Your task to perform on an android device: turn off translation in the chrome app Image 0: 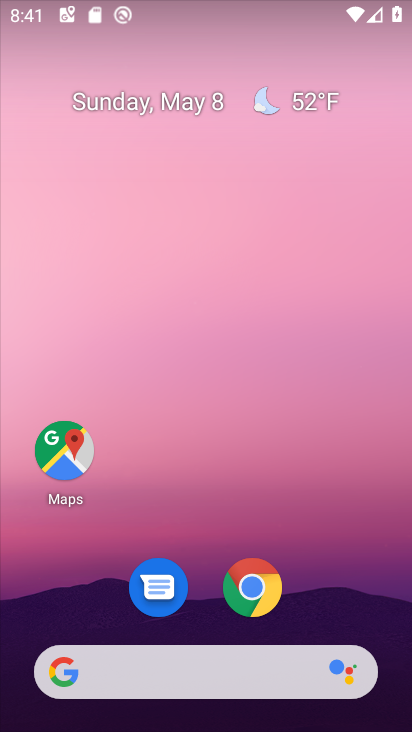
Step 0: drag from (369, 603) to (210, 151)
Your task to perform on an android device: turn off translation in the chrome app Image 1: 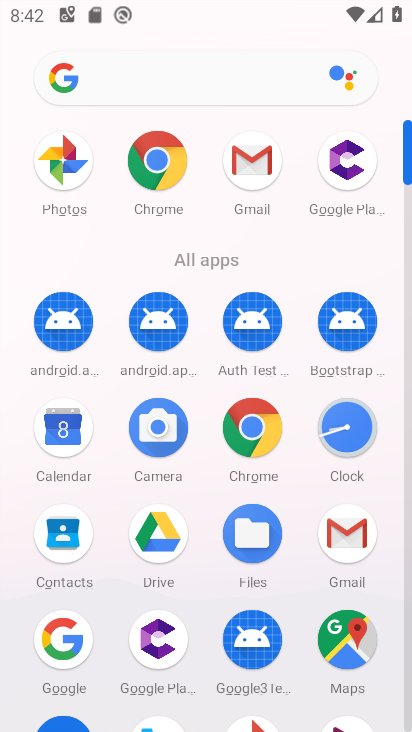
Step 1: click (169, 178)
Your task to perform on an android device: turn off translation in the chrome app Image 2: 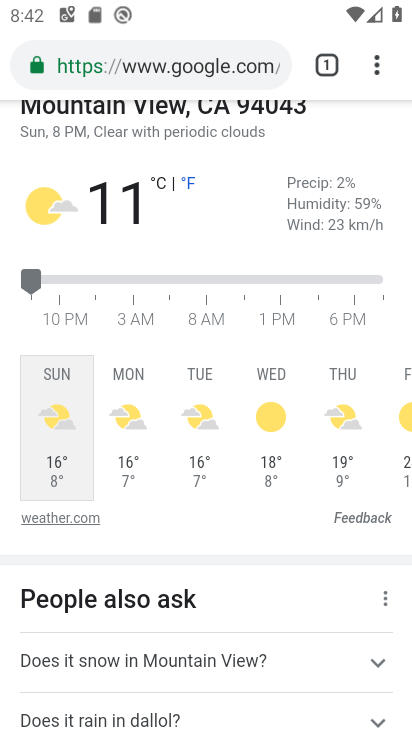
Step 2: drag from (375, 81) to (169, 644)
Your task to perform on an android device: turn off translation in the chrome app Image 3: 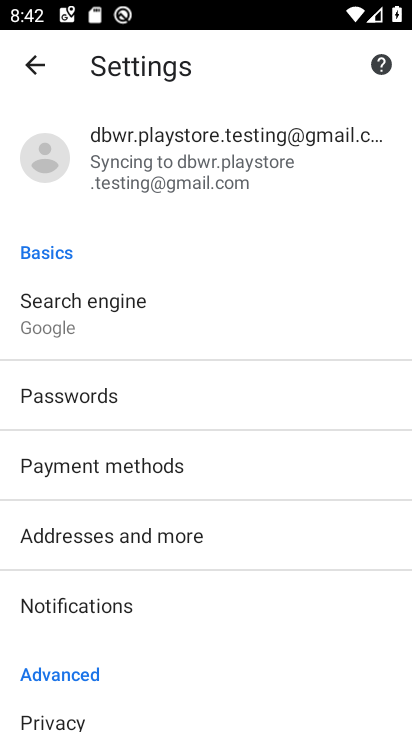
Step 3: drag from (192, 659) to (168, 293)
Your task to perform on an android device: turn off translation in the chrome app Image 4: 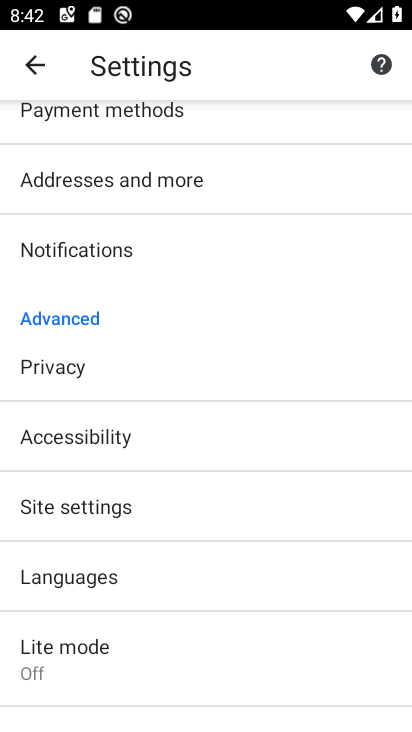
Step 4: click (285, 584)
Your task to perform on an android device: turn off translation in the chrome app Image 5: 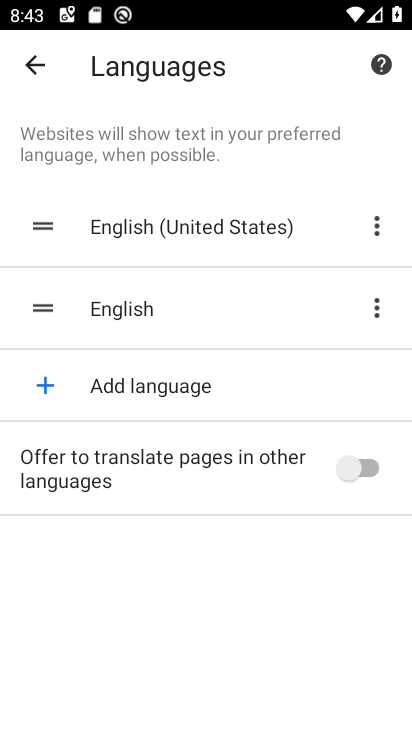
Step 5: task complete